Your task to perform on an android device: Open eBay Image 0: 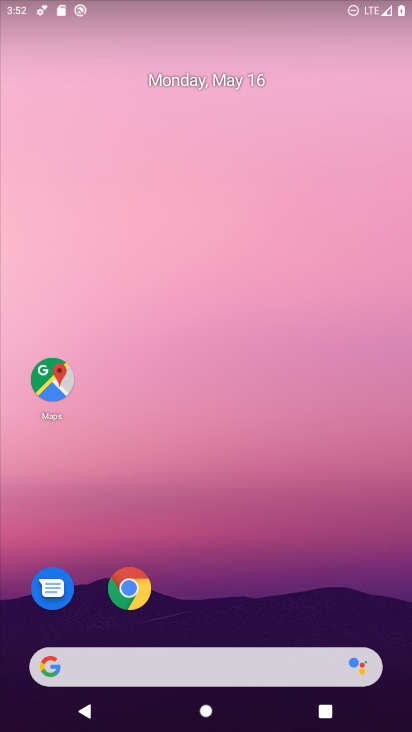
Step 0: click (137, 596)
Your task to perform on an android device: Open eBay Image 1: 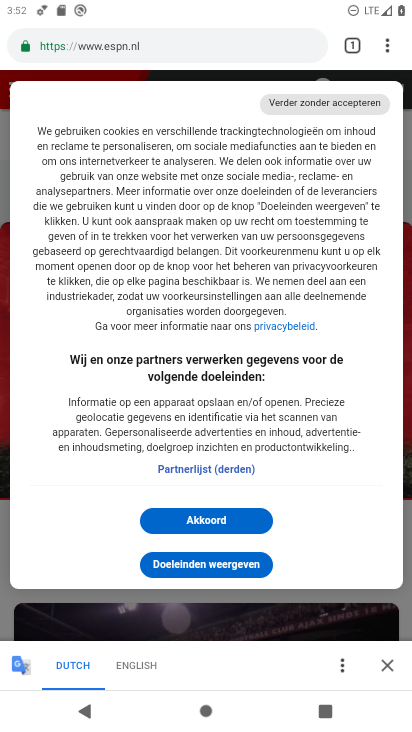
Step 1: click (85, 51)
Your task to perform on an android device: Open eBay Image 2: 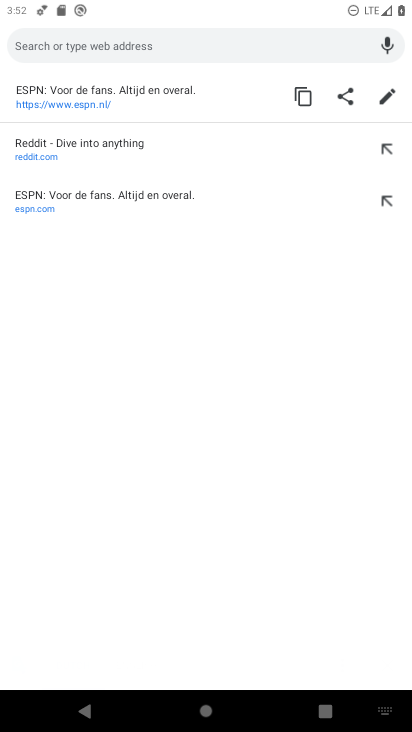
Step 2: type "ebay"
Your task to perform on an android device: Open eBay Image 3: 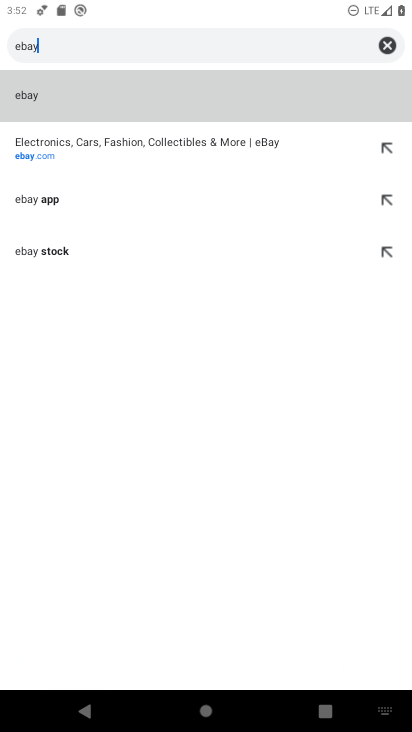
Step 3: click (21, 97)
Your task to perform on an android device: Open eBay Image 4: 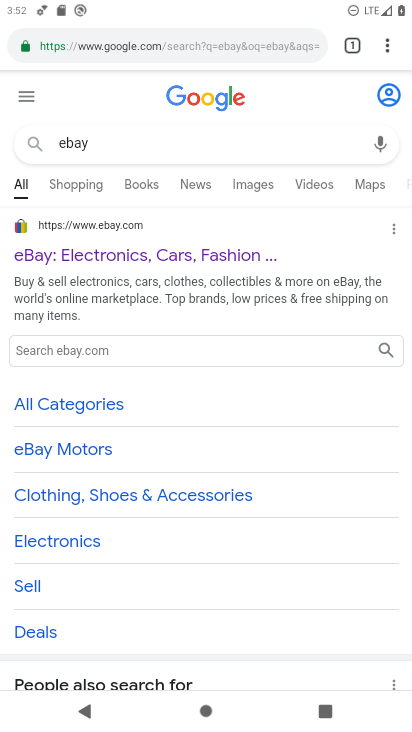
Step 4: click (24, 257)
Your task to perform on an android device: Open eBay Image 5: 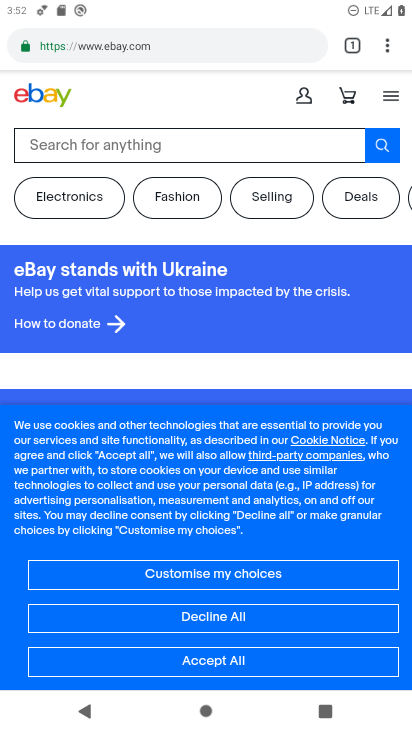
Step 5: task complete